Your task to perform on an android device: toggle priority inbox in the gmail app Image 0: 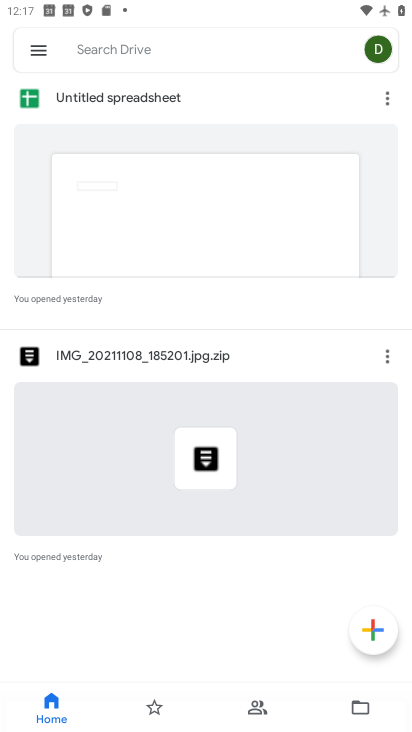
Step 0: press home button
Your task to perform on an android device: toggle priority inbox in the gmail app Image 1: 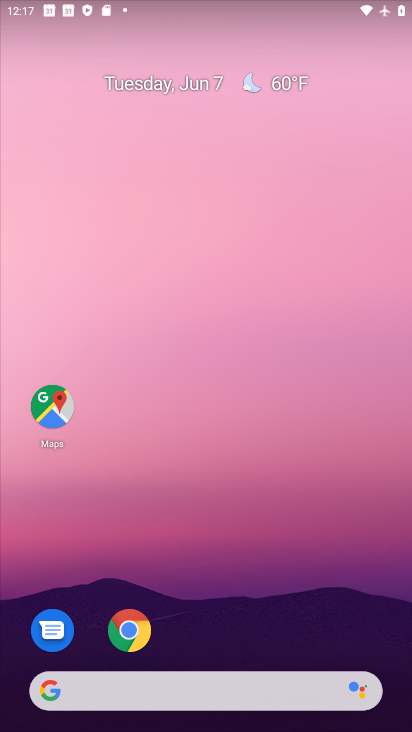
Step 1: drag from (345, 619) to (238, 169)
Your task to perform on an android device: toggle priority inbox in the gmail app Image 2: 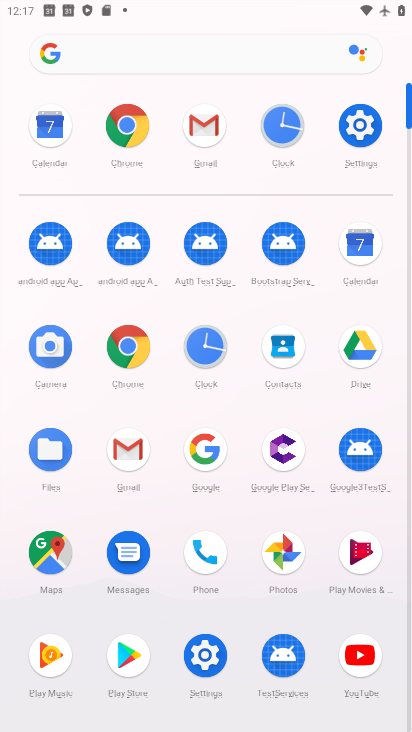
Step 2: click (137, 463)
Your task to perform on an android device: toggle priority inbox in the gmail app Image 3: 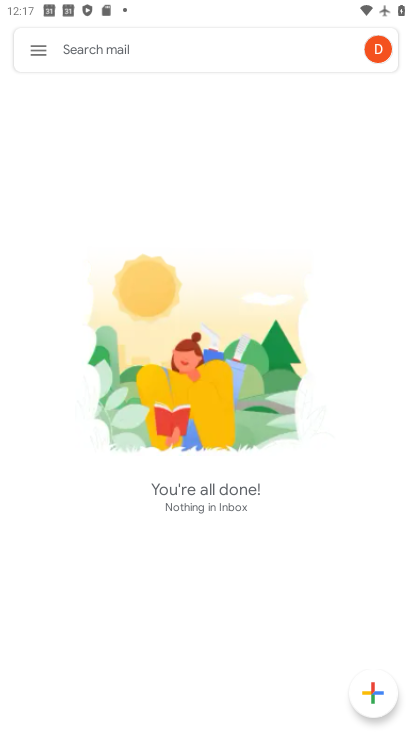
Step 3: click (28, 53)
Your task to perform on an android device: toggle priority inbox in the gmail app Image 4: 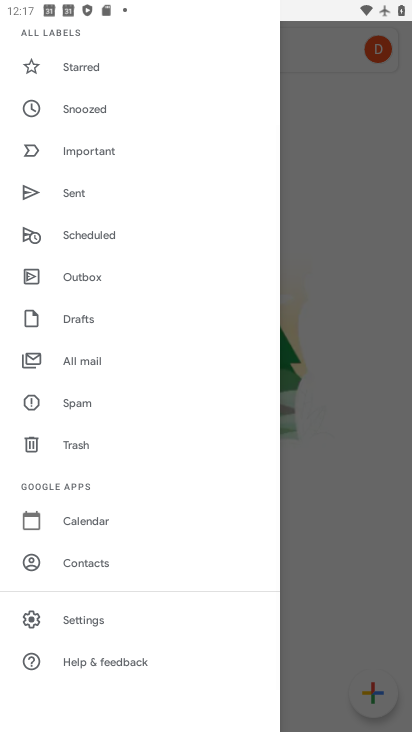
Step 4: click (95, 629)
Your task to perform on an android device: toggle priority inbox in the gmail app Image 5: 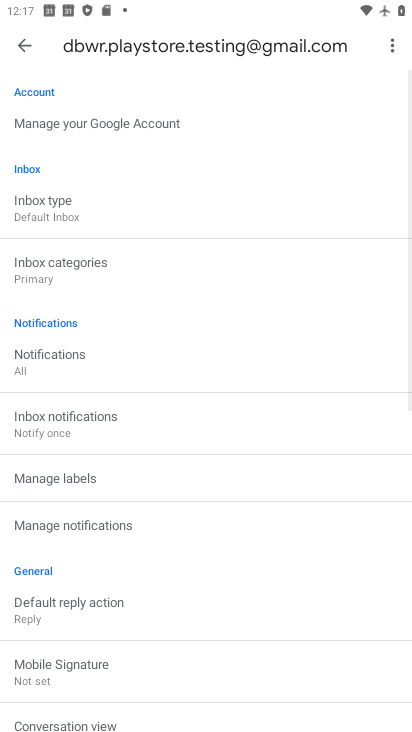
Step 5: click (98, 209)
Your task to perform on an android device: toggle priority inbox in the gmail app Image 6: 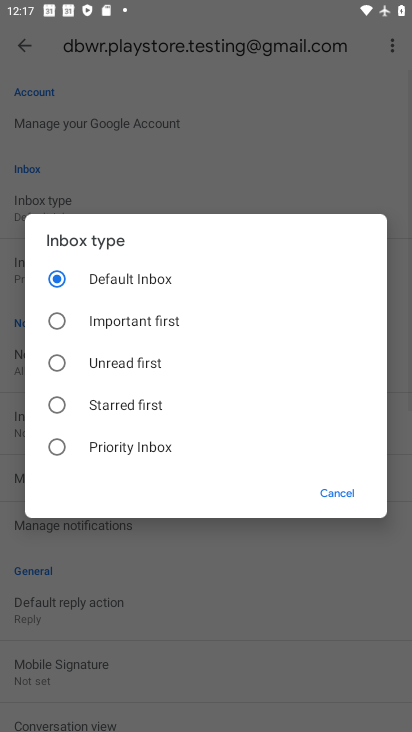
Step 6: click (169, 273)
Your task to perform on an android device: toggle priority inbox in the gmail app Image 7: 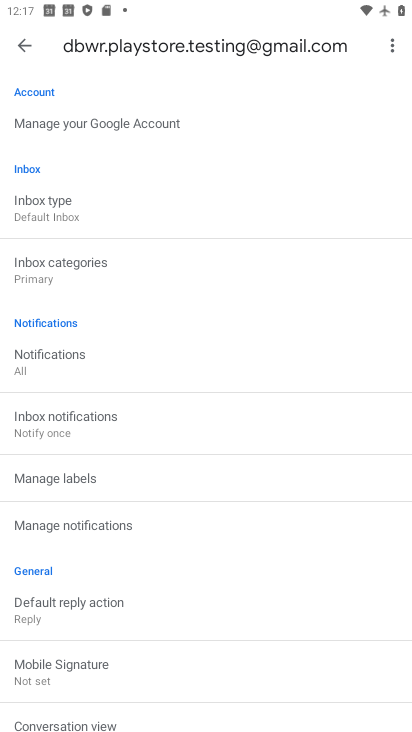
Step 7: task complete